Your task to perform on an android device: Open settings on Google Maps Image 0: 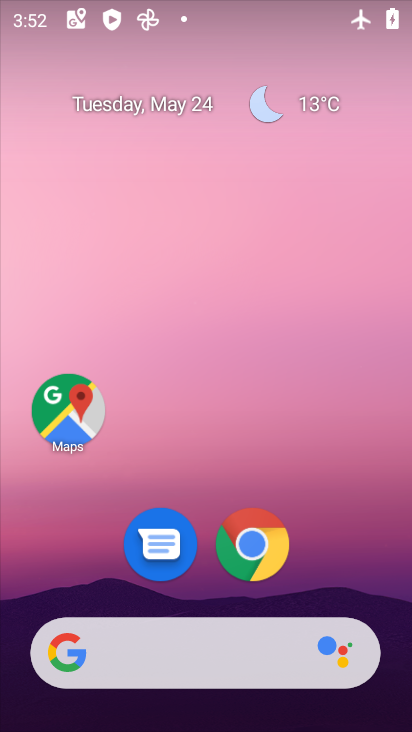
Step 0: drag from (364, 582) to (349, 187)
Your task to perform on an android device: Open settings on Google Maps Image 1: 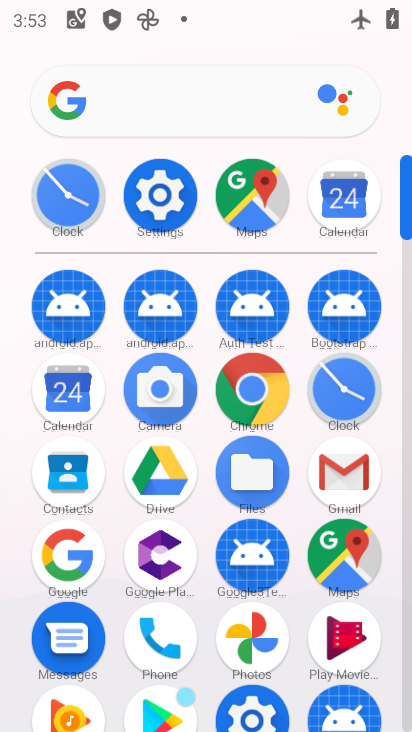
Step 1: click (286, 191)
Your task to perform on an android device: Open settings on Google Maps Image 2: 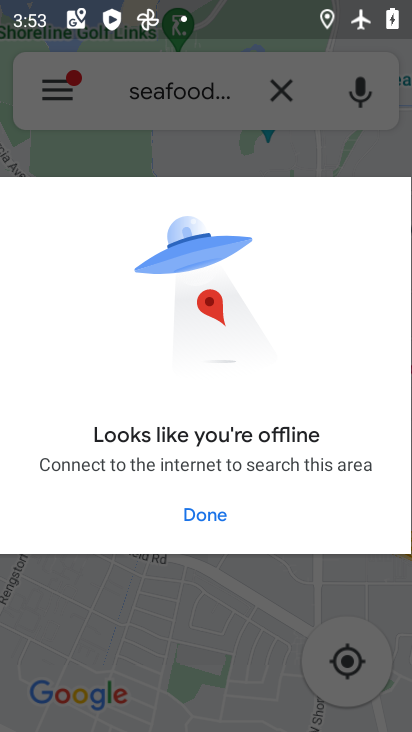
Step 2: task complete